Your task to perform on an android device: Open battery settings Image 0: 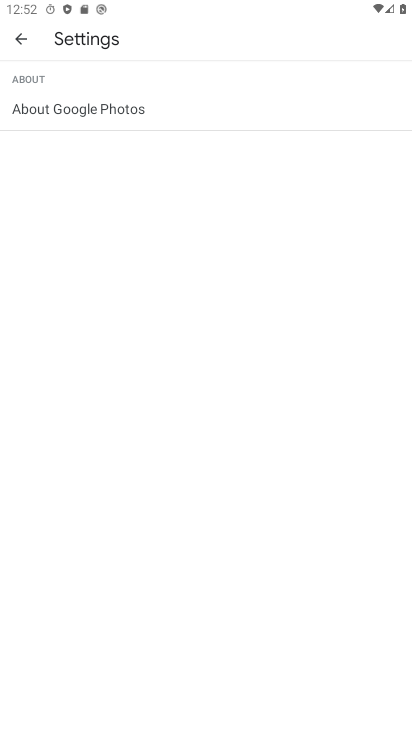
Step 0: drag from (212, 623) to (211, 5)
Your task to perform on an android device: Open battery settings Image 1: 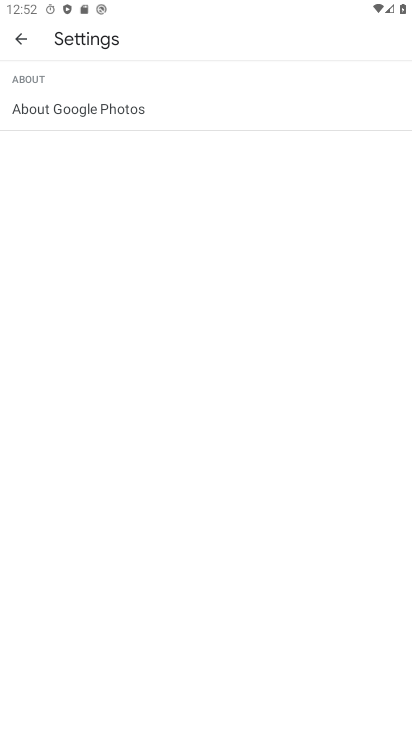
Step 1: click (23, 35)
Your task to perform on an android device: Open battery settings Image 2: 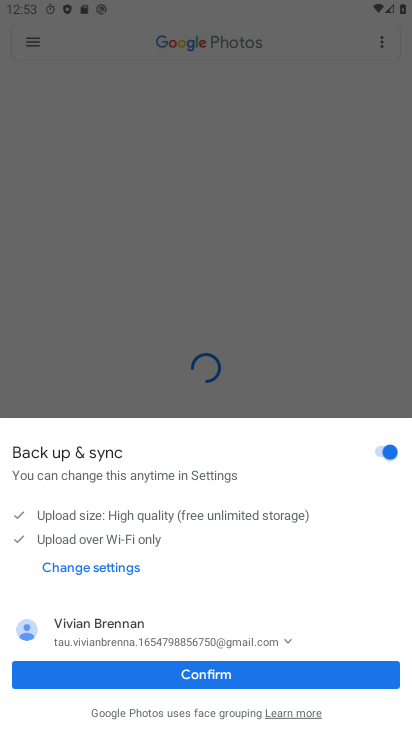
Step 2: press home button
Your task to perform on an android device: Open battery settings Image 3: 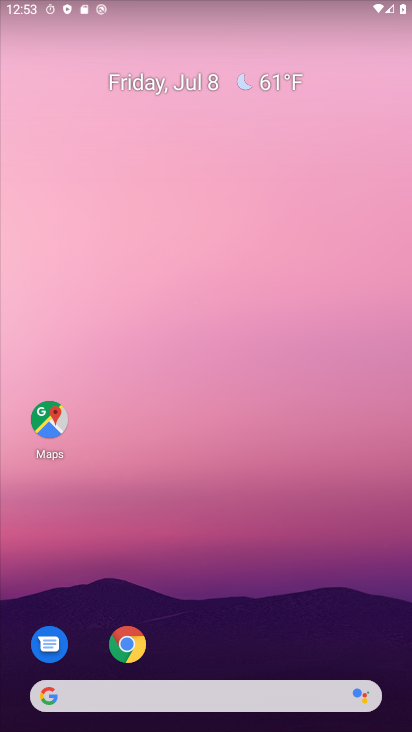
Step 3: drag from (196, 103) to (199, 61)
Your task to perform on an android device: Open battery settings Image 4: 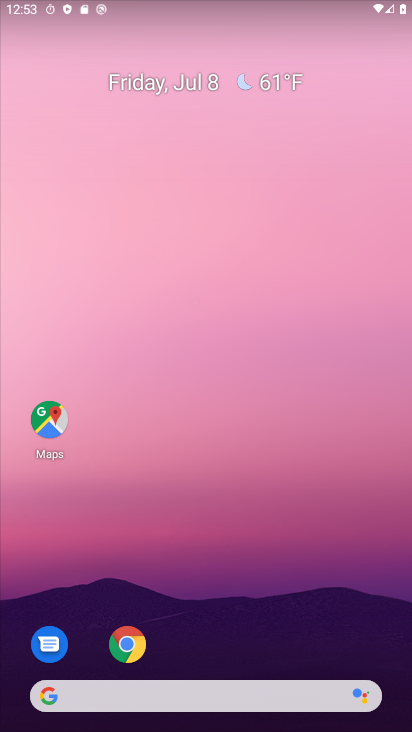
Step 4: drag from (173, 387) to (204, 7)
Your task to perform on an android device: Open battery settings Image 5: 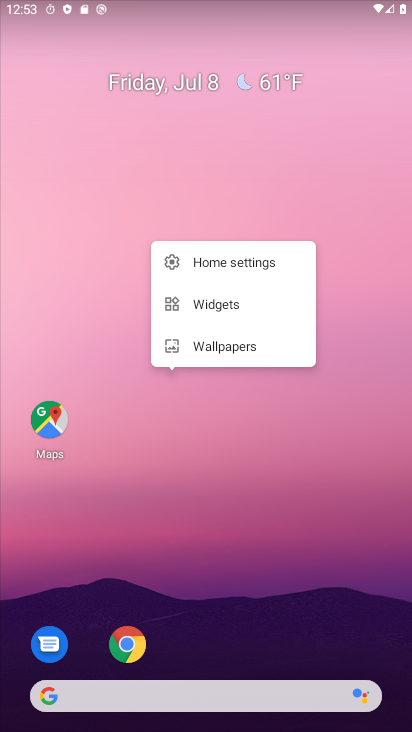
Step 5: click (194, 563)
Your task to perform on an android device: Open battery settings Image 6: 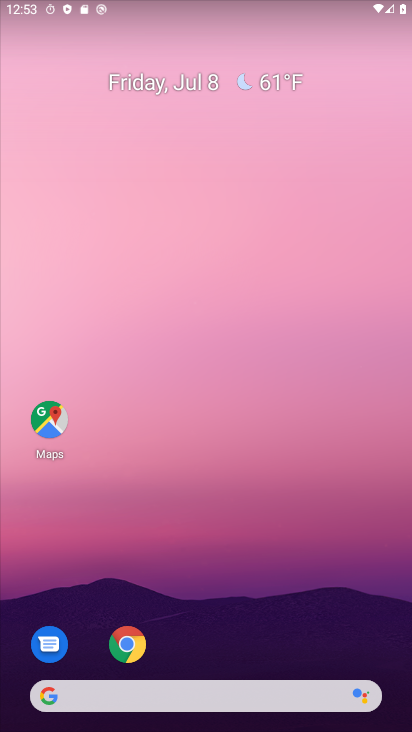
Step 6: drag from (208, 464) to (212, 69)
Your task to perform on an android device: Open battery settings Image 7: 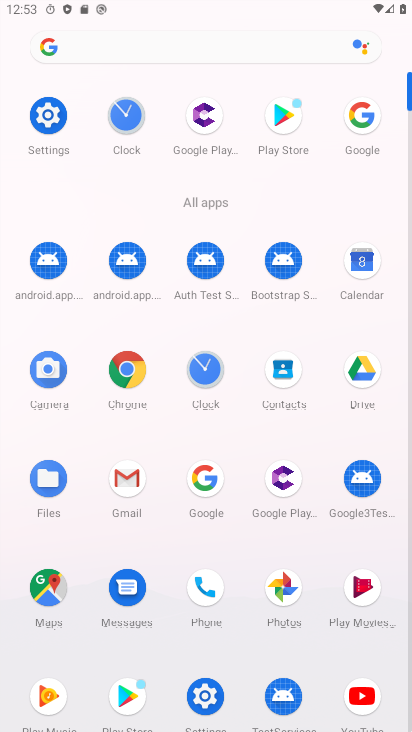
Step 7: click (49, 124)
Your task to perform on an android device: Open battery settings Image 8: 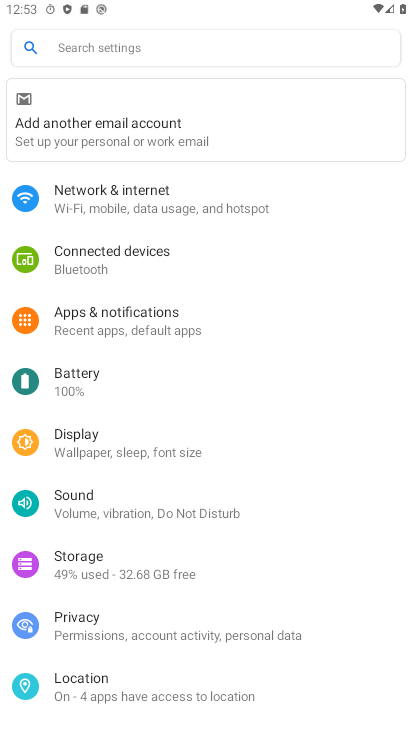
Step 8: click (59, 373)
Your task to perform on an android device: Open battery settings Image 9: 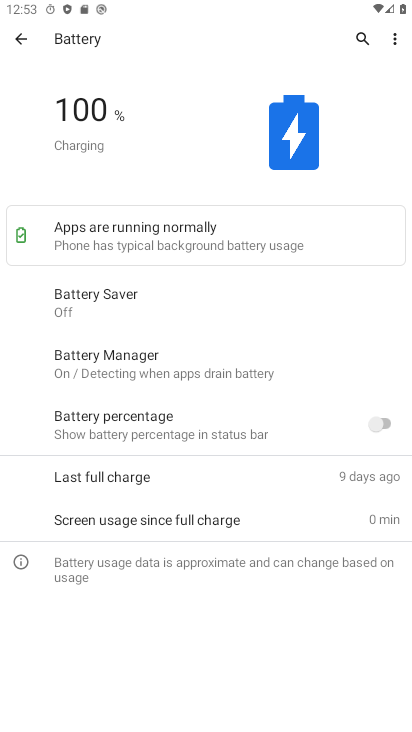
Step 9: task complete